Your task to perform on an android device: Open the calendar app, open the side menu, and click the "Day" option Image 0: 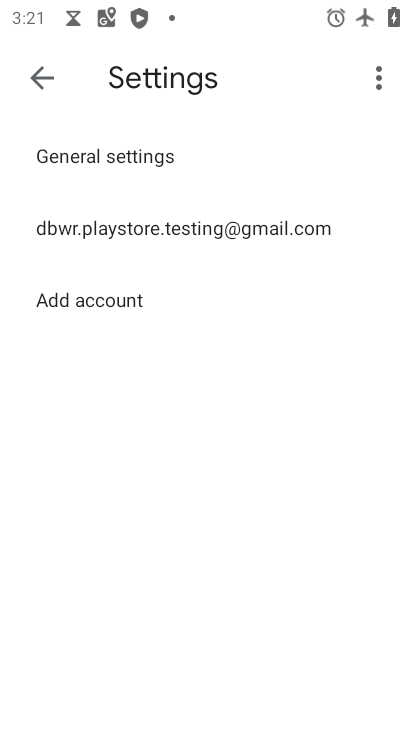
Step 0: press home button
Your task to perform on an android device: Open the calendar app, open the side menu, and click the "Day" option Image 1: 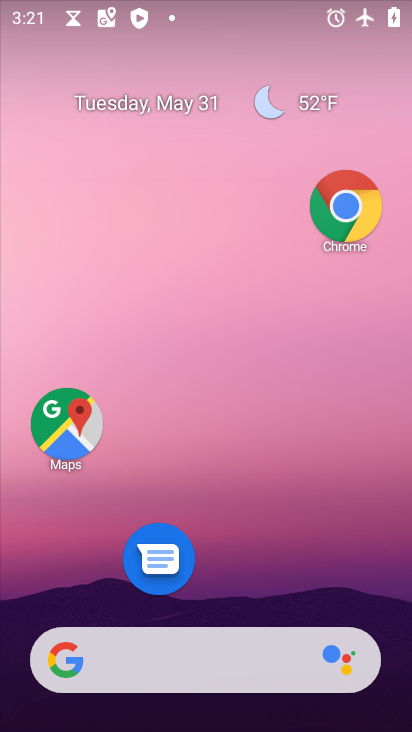
Step 1: drag from (255, 584) to (283, 183)
Your task to perform on an android device: Open the calendar app, open the side menu, and click the "Day" option Image 2: 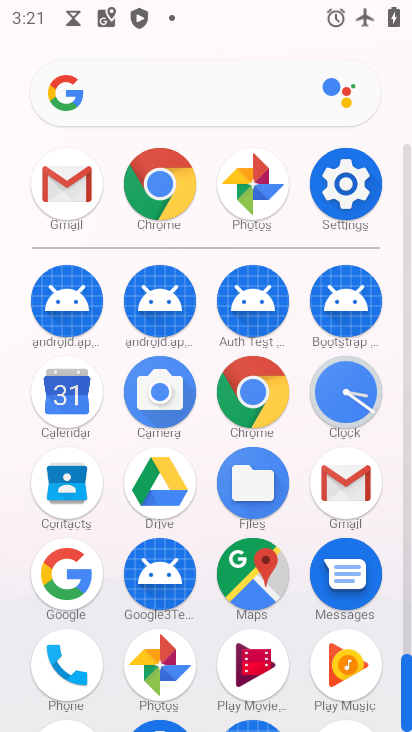
Step 2: click (79, 411)
Your task to perform on an android device: Open the calendar app, open the side menu, and click the "Day" option Image 3: 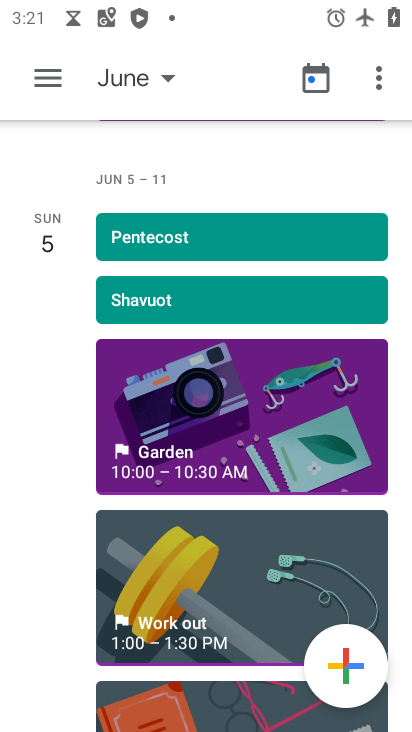
Step 3: click (46, 71)
Your task to perform on an android device: Open the calendar app, open the side menu, and click the "Day" option Image 4: 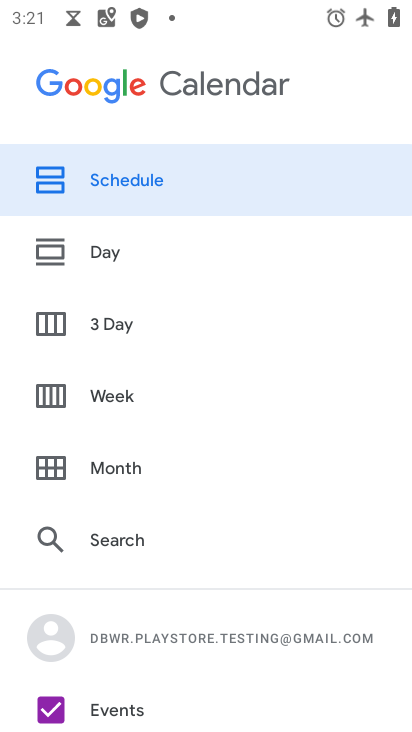
Step 4: click (61, 250)
Your task to perform on an android device: Open the calendar app, open the side menu, and click the "Day" option Image 5: 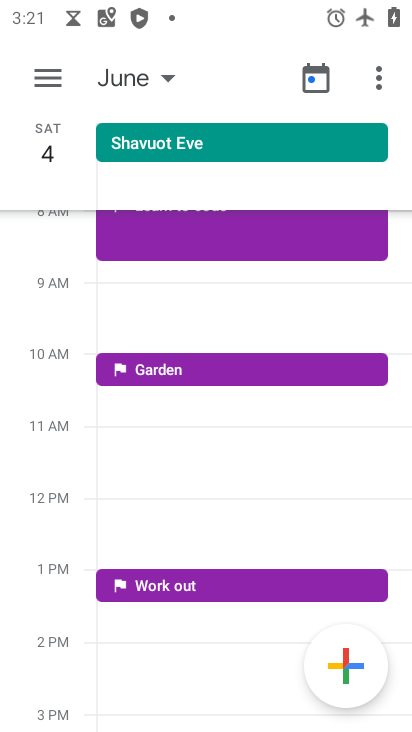
Step 5: click (62, 87)
Your task to perform on an android device: Open the calendar app, open the side menu, and click the "Day" option Image 6: 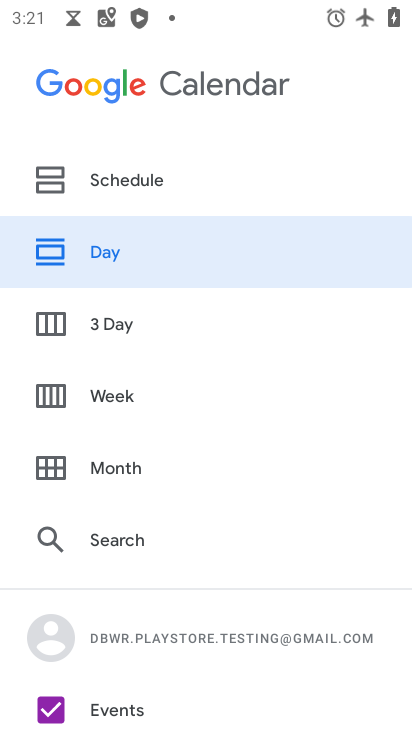
Step 6: task complete